Your task to perform on an android device: turn on the 24-hour format for clock Image 0: 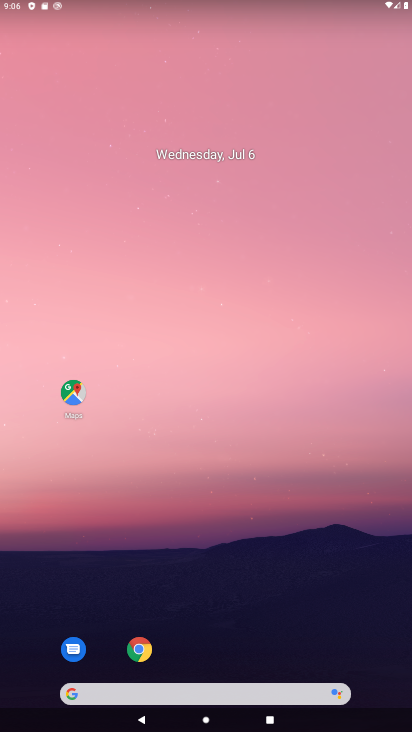
Step 0: drag from (223, 665) to (259, 230)
Your task to perform on an android device: turn on the 24-hour format for clock Image 1: 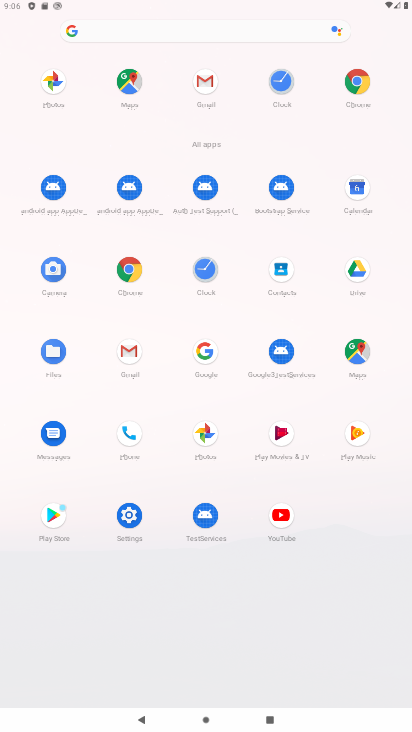
Step 1: click (204, 269)
Your task to perform on an android device: turn on the 24-hour format for clock Image 2: 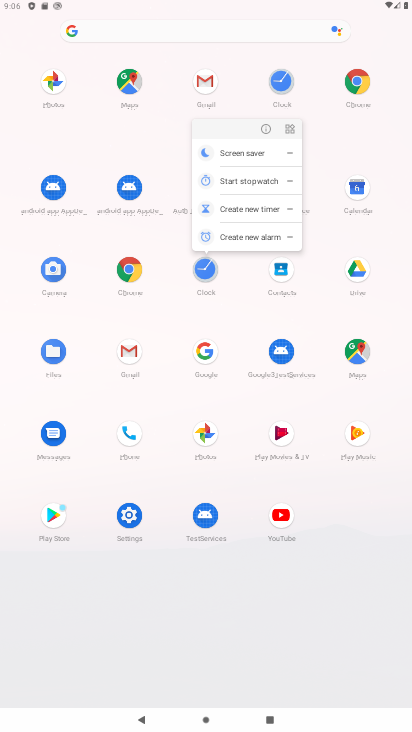
Step 2: click (265, 128)
Your task to perform on an android device: turn on the 24-hour format for clock Image 3: 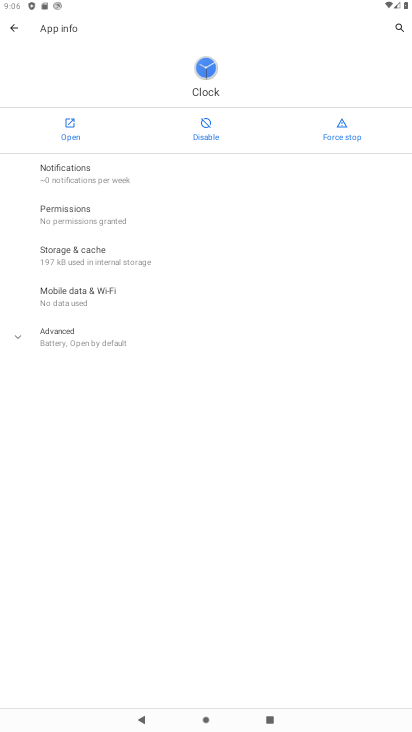
Step 3: click (81, 124)
Your task to perform on an android device: turn on the 24-hour format for clock Image 4: 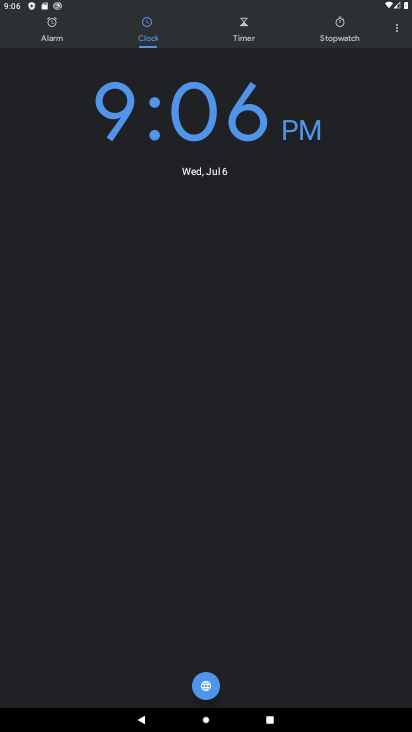
Step 4: click (401, 33)
Your task to perform on an android device: turn on the 24-hour format for clock Image 5: 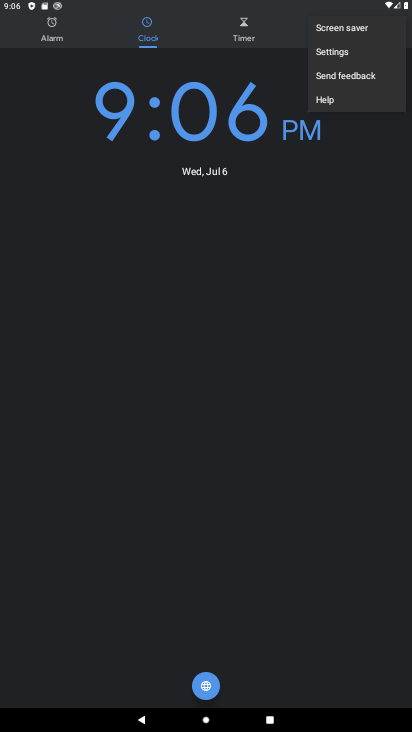
Step 5: click (357, 55)
Your task to perform on an android device: turn on the 24-hour format for clock Image 6: 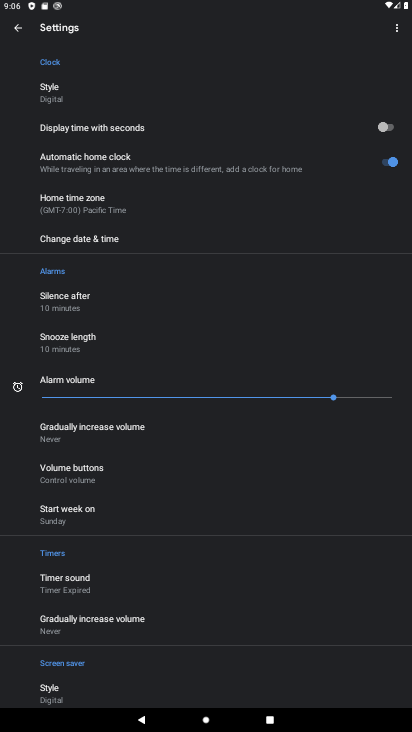
Step 6: drag from (204, 604) to (319, 293)
Your task to perform on an android device: turn on the 24-hour format for clock Image 7: 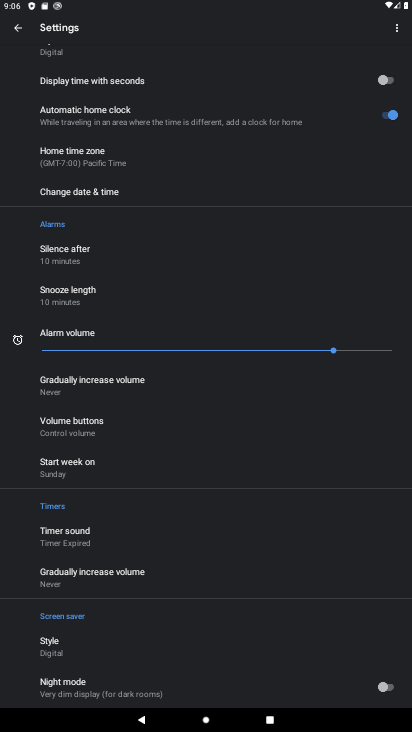
Step 7: click (87, 200)
Your task to perform on an android device: turn on the 24-hour format for clock Image 8: 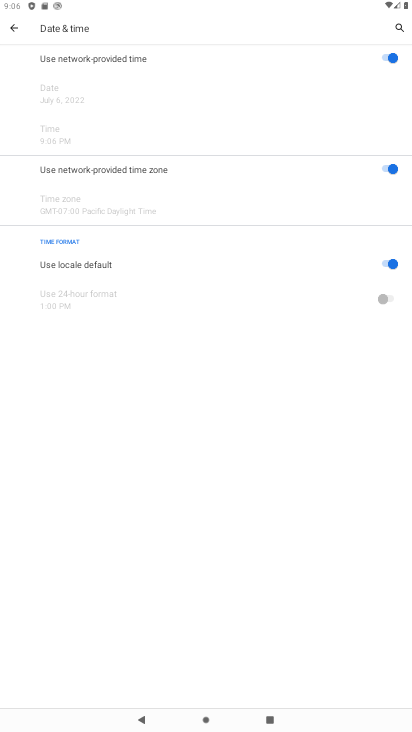
Step 8: click (385, 265)
Your task to perform on an android device: turn on the 24-hour format for clock Image 9: 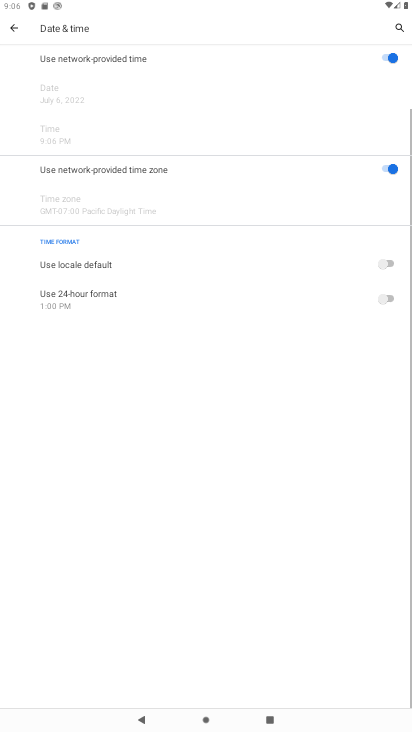
Step 9: click (379, 296)
Your task to perform on an android device: turn on the 24-hour format for clock Image 10: 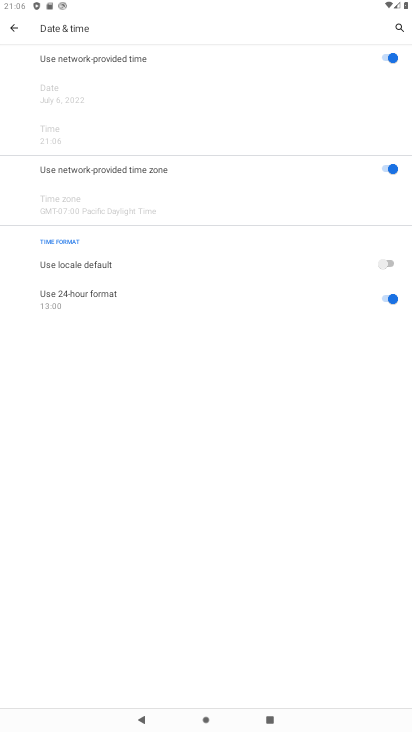
Step 10: task complete